Your task to perform on an android device: turn on notifications settings in the gmail app Image 0: 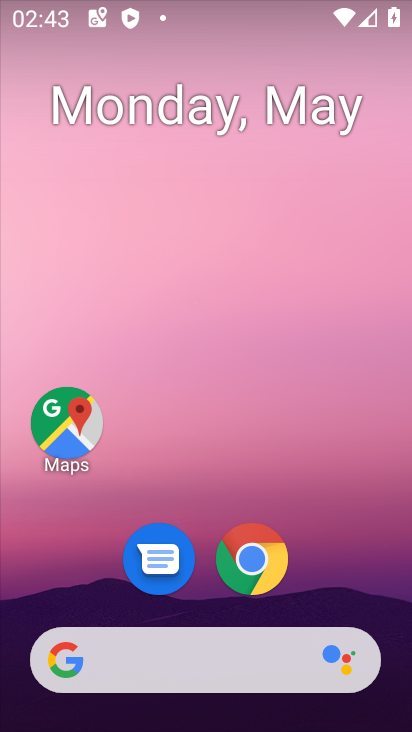
Step 0: drag from (197, 719) to (129, 132)
Your task to perform on an android device: turn on notifications settings in the gmail app Image 1: 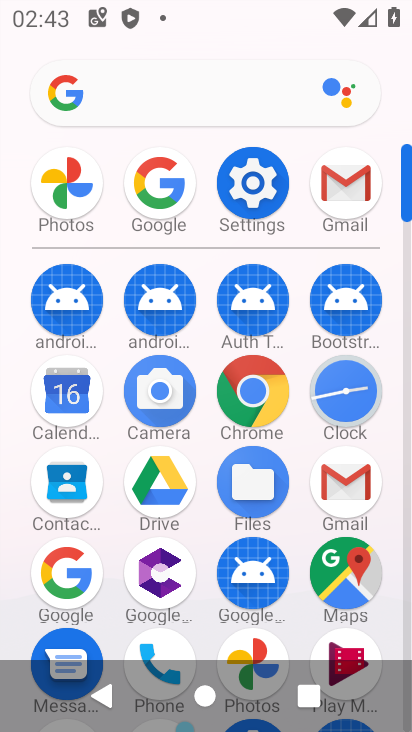
Step 1: click (337, 489)
Your task to perform on an android device: turn on notifications settings in the gmail app Image 2: 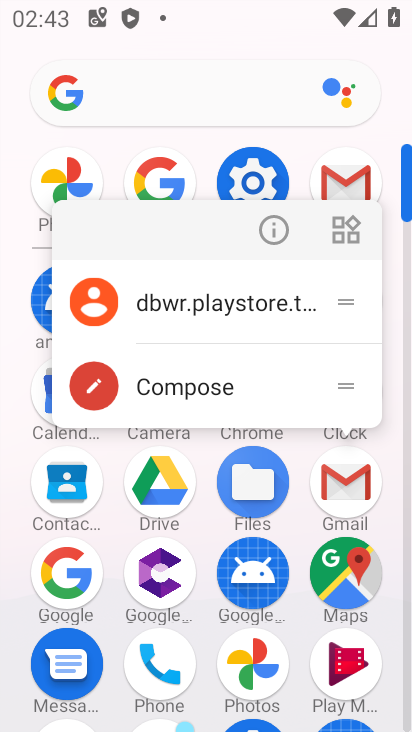
Step 2: click (287, 227)
Your task to perform on an android device: turn on notifications settings in the gmail app Image 3: 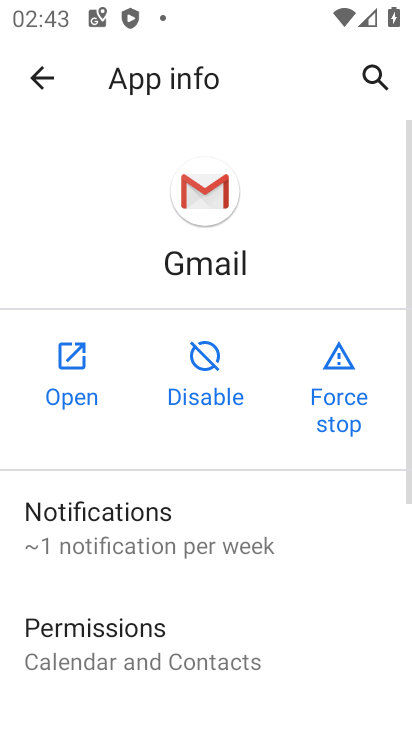
Step 3: click (303, 509)
Your task to perform on an android device: turn on notifications settings in the gmail app Image 4: 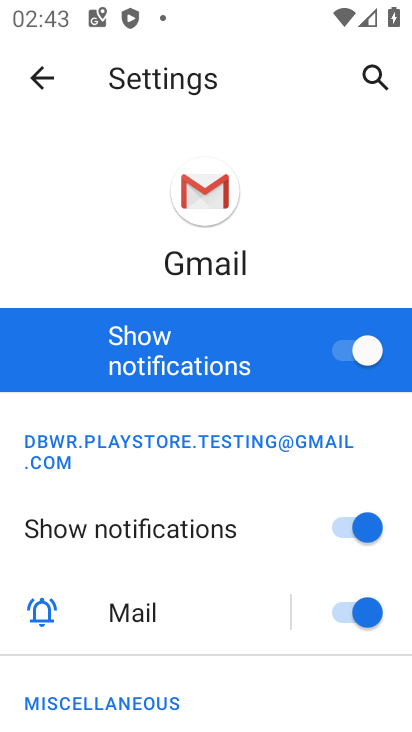
Step 4: task complete